Your task to perform on an android device: Check the news Image 0: 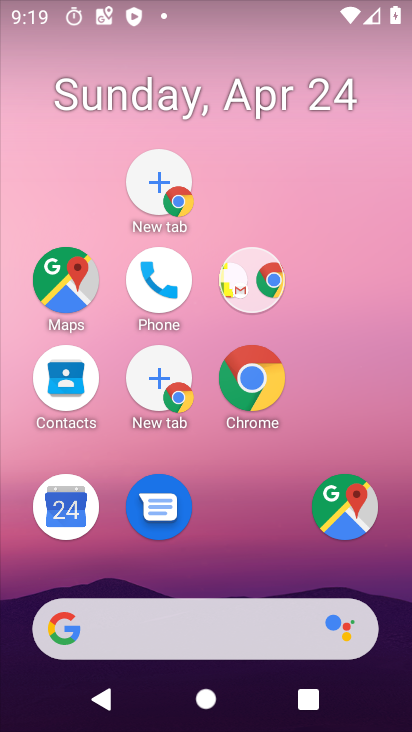
Step 0: click (136, 148)
Your task to perform on an android device: Check the news Image 1: 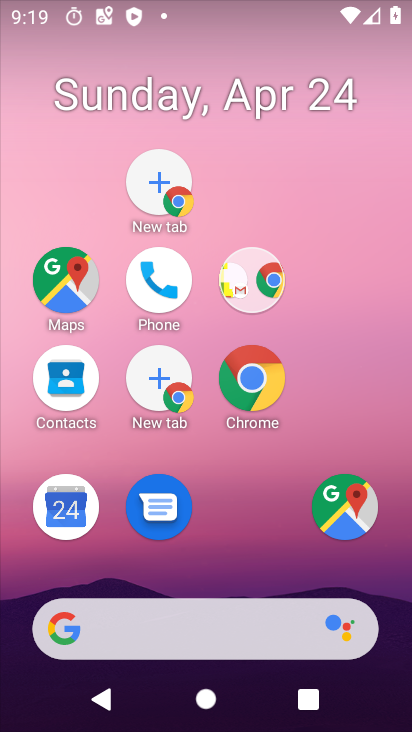
Step 1: drag from (265, 648) to (172, 115)
Your task to perform on an android device: Check the news Image 2: 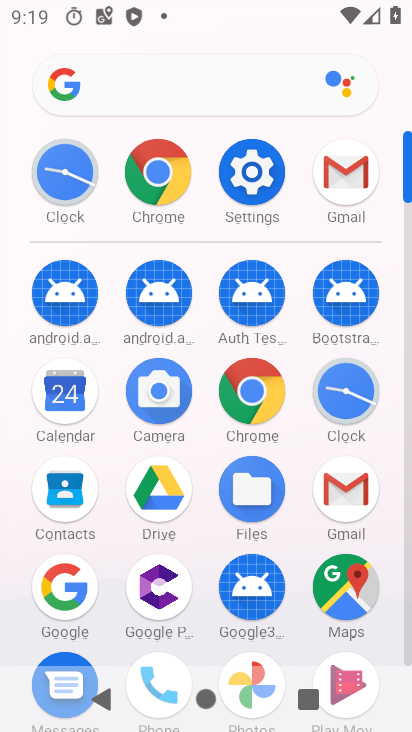
Step 2: press home button
Your task to perform on an android device: Check the news Image 3: 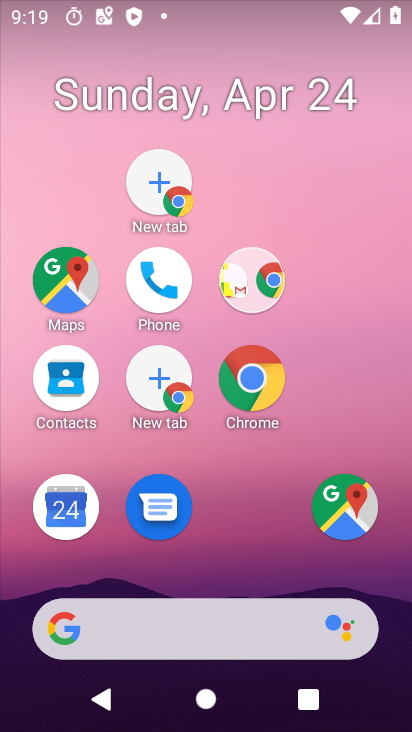
Step 3: drag from (5, 243) to (331, 240)
Your task to perform on an android device: Check the news Image 4: 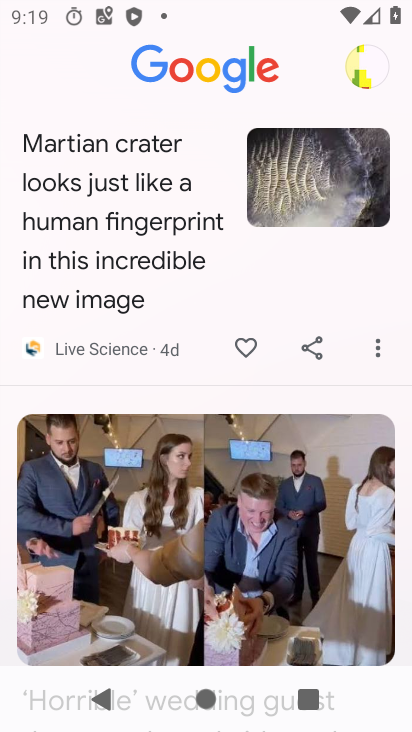
Step 4: drag from (233, 563) to (217, 186)
Your task to perform on an android device: Check the news Image 5: 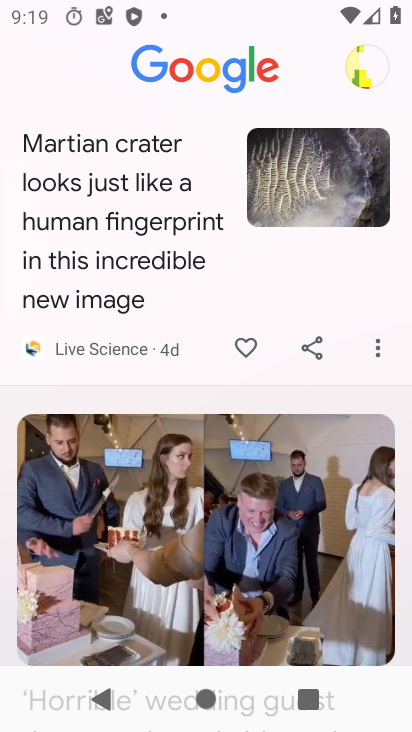
Step 5: drag from (251, 501) to (178, 24)
Your task to perform on an android device: Check the news Image 6: 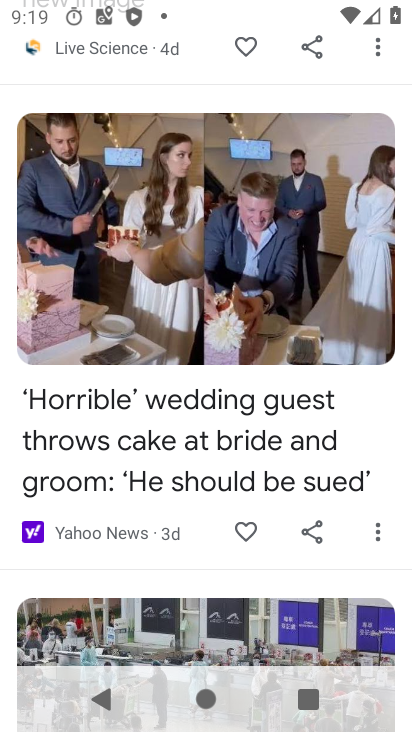
Step 6: drag from (181, 497) to (166, 56)
Your task to perform on an android device: Check the news Image 7: 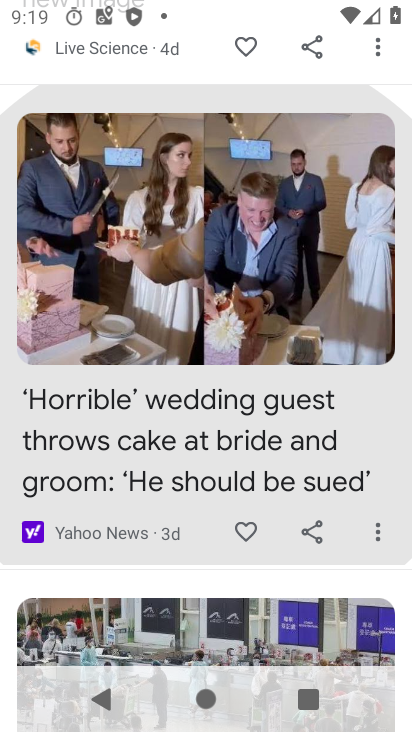
Step 7: drag from (228, 588) to (151, 100)
Your task to perform on an android device: Check the news Image 8: 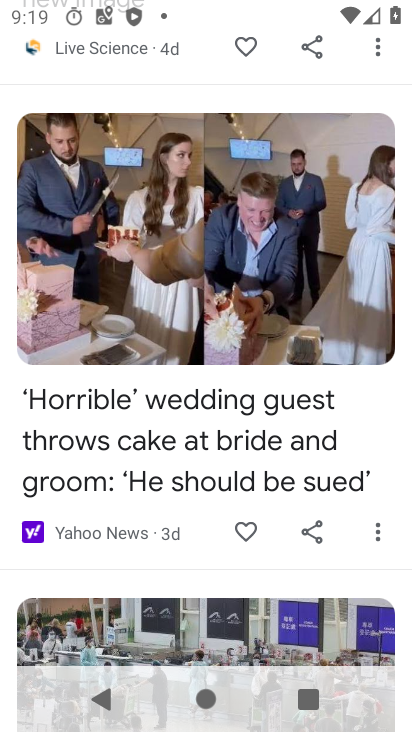
Step 8: drag from (237, 582) to (163, 184)
Your task to perform on an android device: Check the news Image 9: 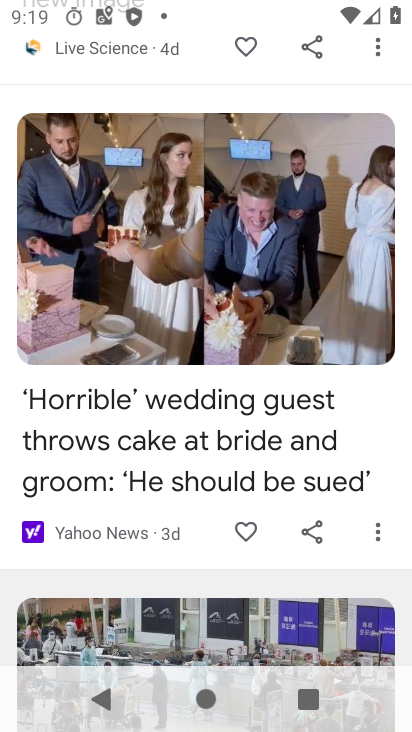
Step 9: drag from (268, 609) to (201, 46)
Your task to perform on an android device: Check the news Image 10: 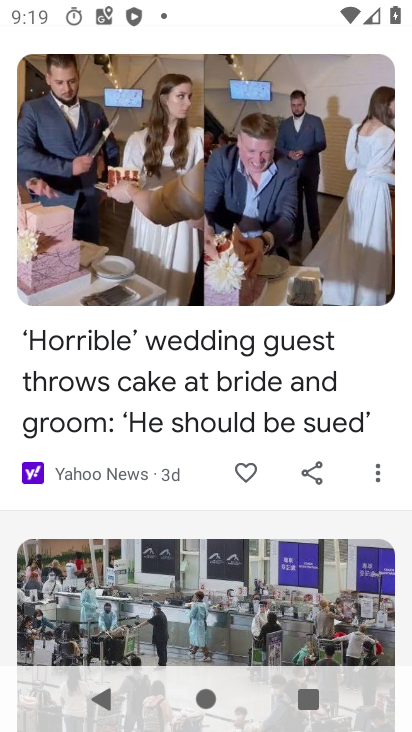
Step 10: drag from (175, 188) to (144, 61)
Your task to perform on an android device: Check the news Image 11: 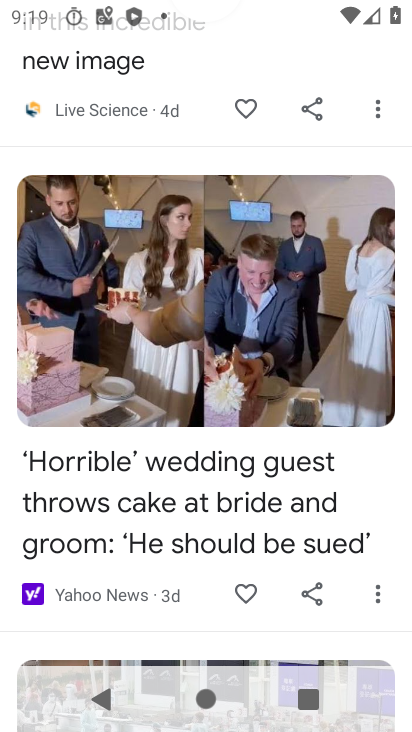
Step 11: drag from (163, 450) to (128, 28)
Your task to perform on an android device: Check the news Image 12: 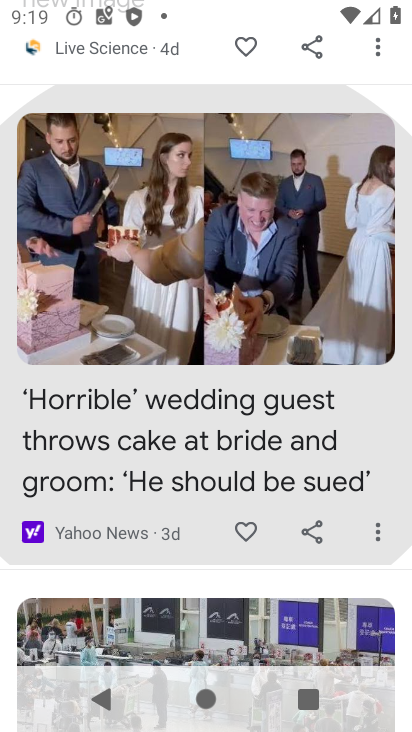
Step 12: drag from (170, 529) to (206, 62)
Your task to perform on an android device: Check the news Image 13: 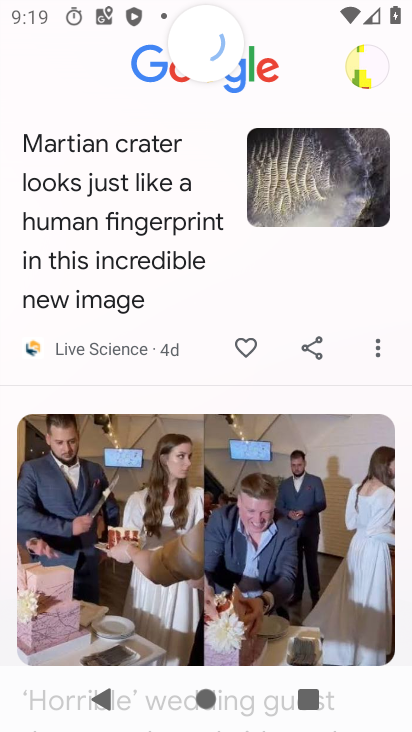
Step 13: drag from (203, 192) to (205, 117)
Your task to perform on an android device: Check the news Image 14: 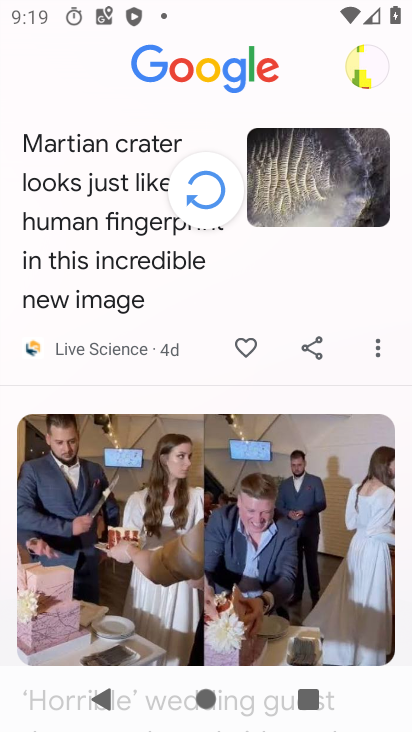
Step 14: drag from (239, 376) to (239, 221)
Your task to perform on an android device: Check the news Image 15: 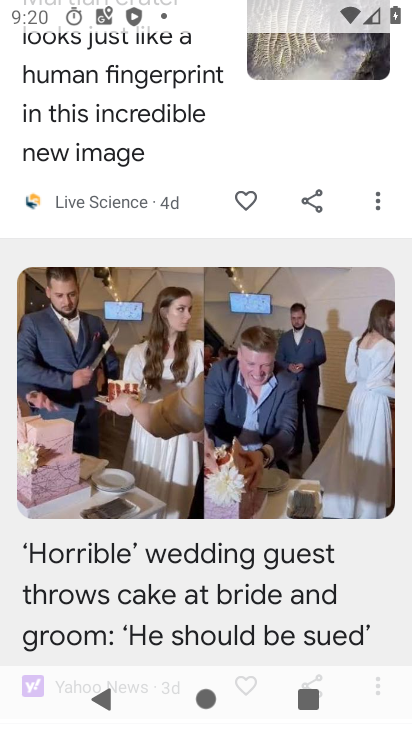
Step 15: drag from (192, 220) to (155, 91)
Your task to perform on an android device: Check the news Image 16: 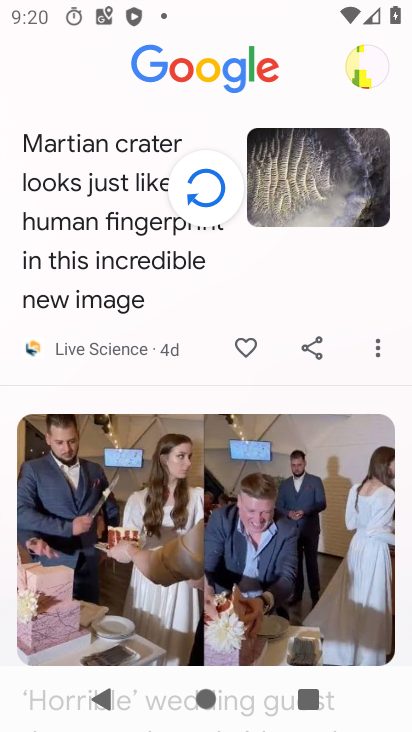
Step 16: drag from (184, 392) to (176, 93)
Your task to perform on an android device: Check the news Image 17: 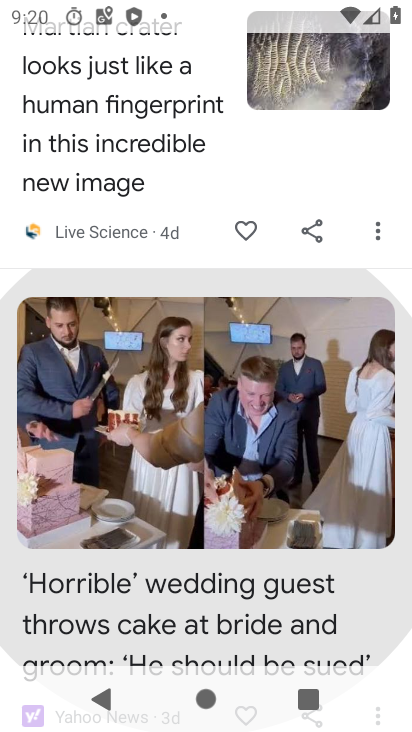
Step 17: drag from (188, 247) to (271, 282)
Your task to perform on an android device: Check the news Image 18: 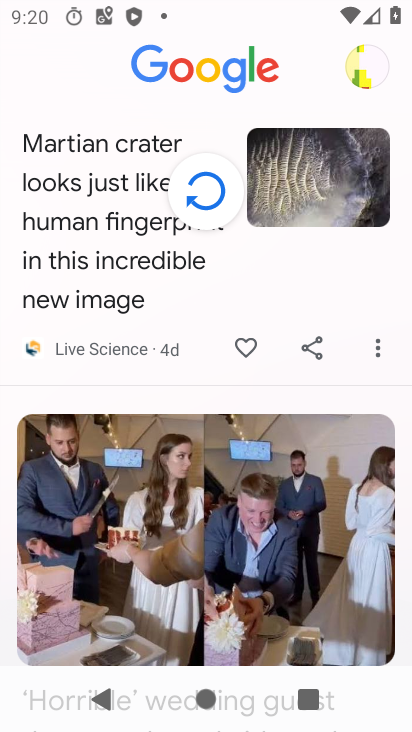
Step 18: click (144, 446)
Your task to perform on an android device: Check the news Image 19: 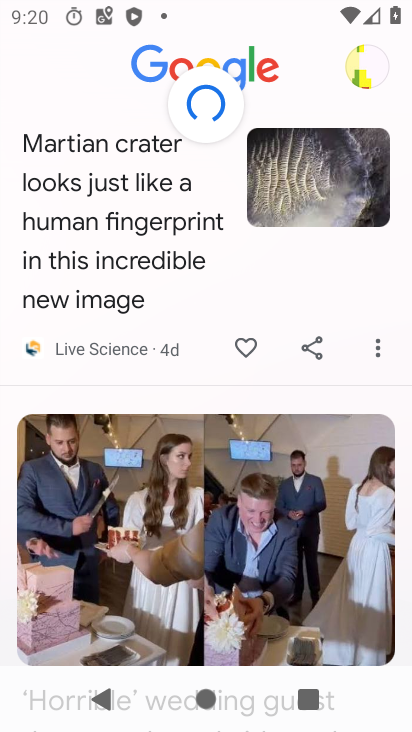
Step 19: task complete